Your task to perform on an android device: check battery use Image 0: 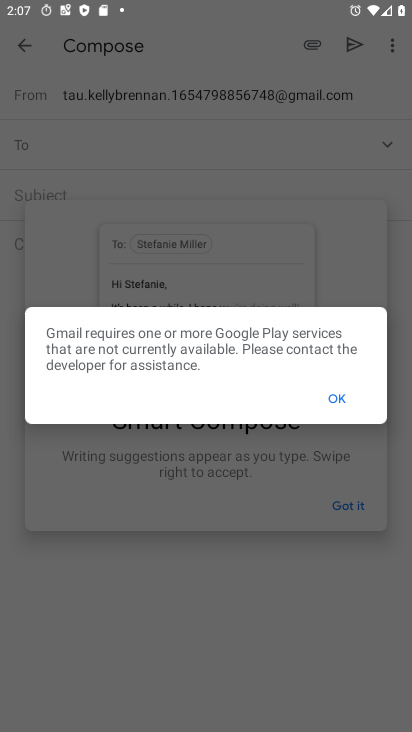
Step 0: press home button
Your task to perform on an android device: check battery use Image 1: 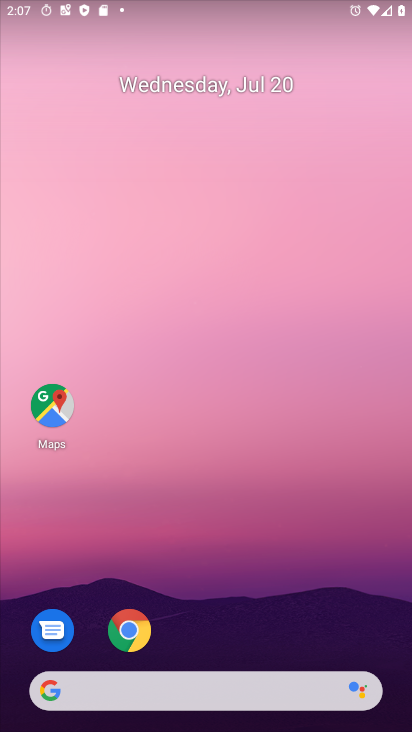
Step 1: drag from (157, 691) to (301, 75)
Your task to perform on an android device: check battery use Image 2: 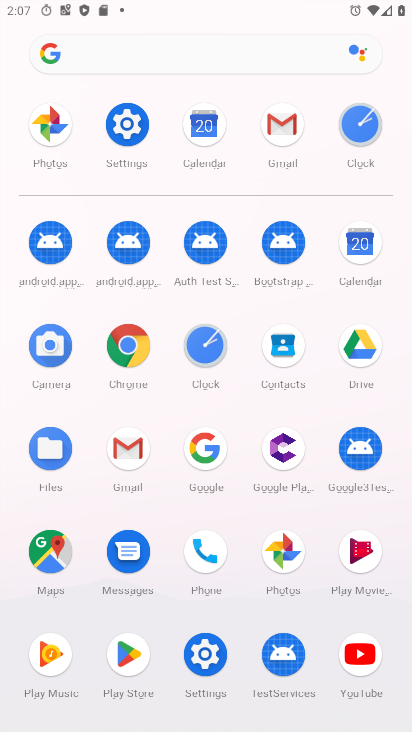
Step 2: click (133, 122)
Your task to perform on an android device: check battery use Image 3: 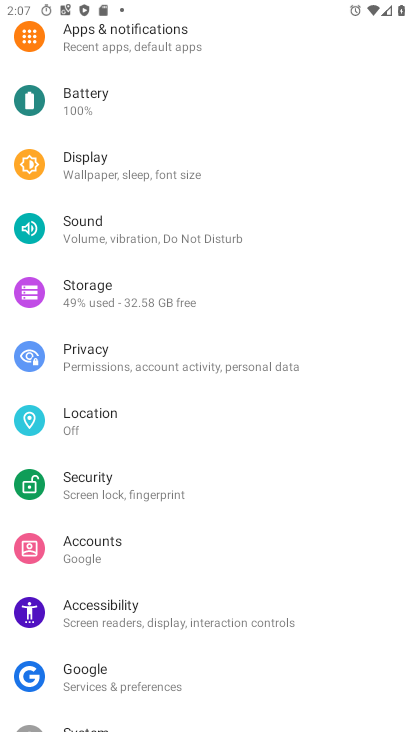
Step 3: click (88, 101)
Your task to perform on an android device: check battery use Image 4: 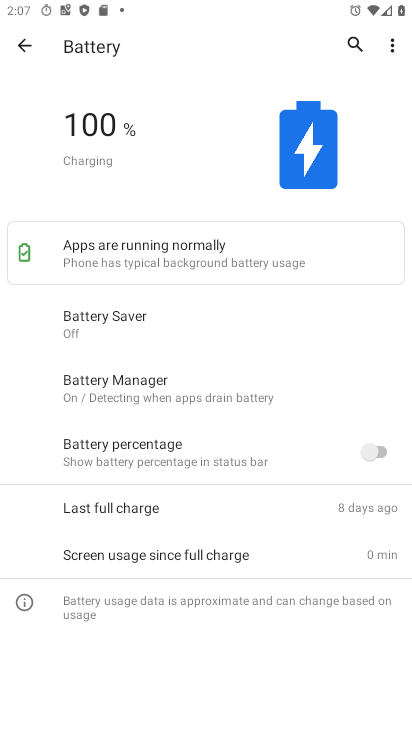
Step 4: click (393, 37)
Your task to perform on an android device: check battery use Image 5: 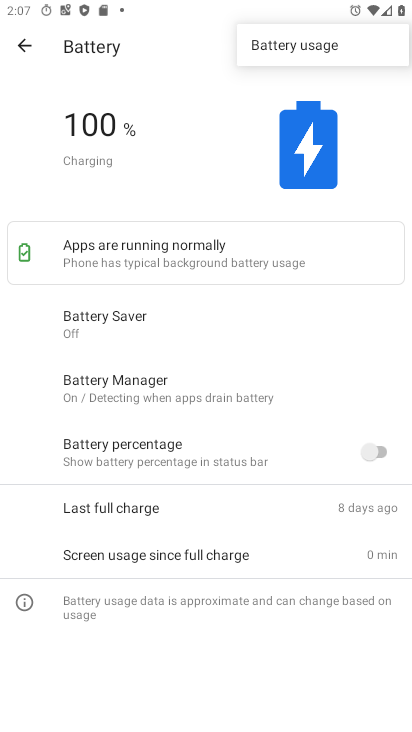
Step 5: click (279, 44)
Your task to perform on an android device: check battery use Image 6: 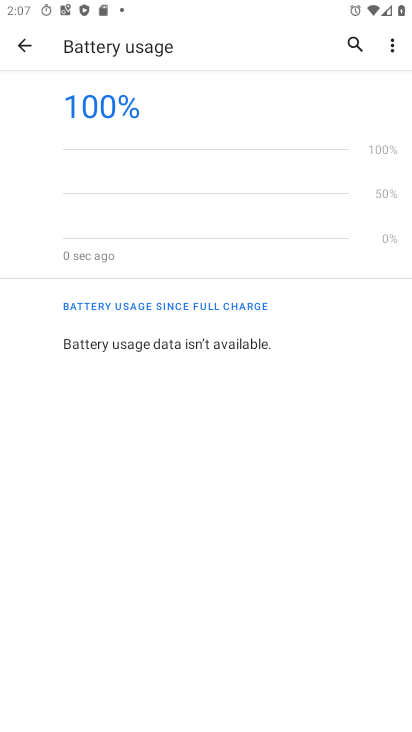
Step 6: task complete